Your task to perform on an android device: change alarm snooze length Image 0: 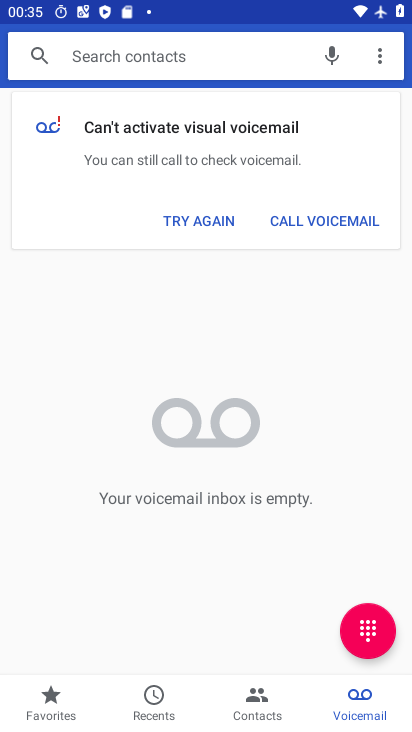
Step 0: press home button
Your task to perform on an android device: change alarm snooze length Image 1: 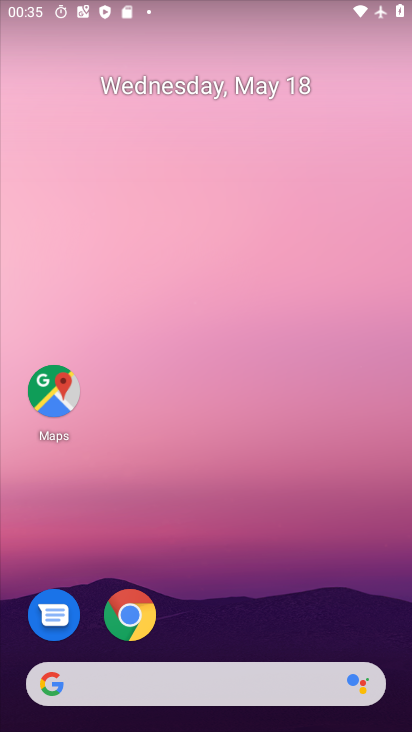
Step 1: drag from (205, 627) to (292, 261)
Your task to perform on an android device: change alarm snooze length Image 2: 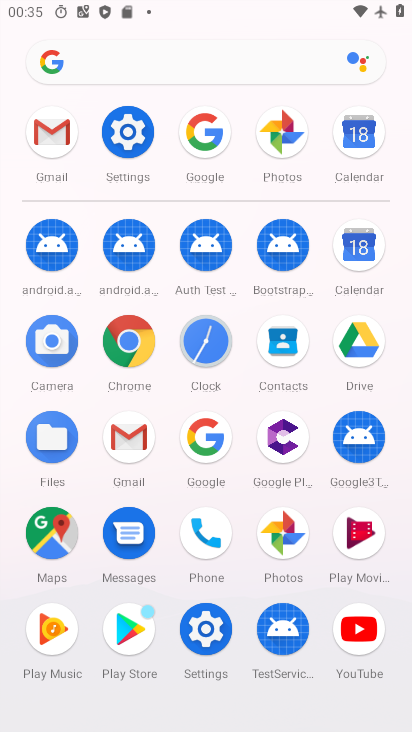
Step 2: click (197, 340)
Your task to perform on an android device: change alarm snooze length Image 3: 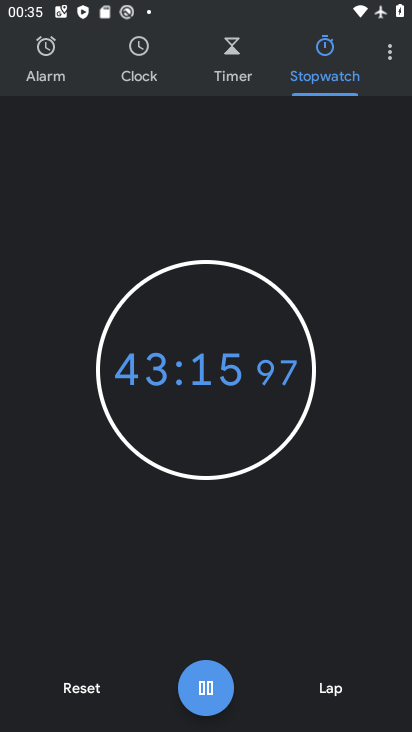
Step 3: click (384, 44)
Your task to perform on an android device: change alarm snooze length Image 4: 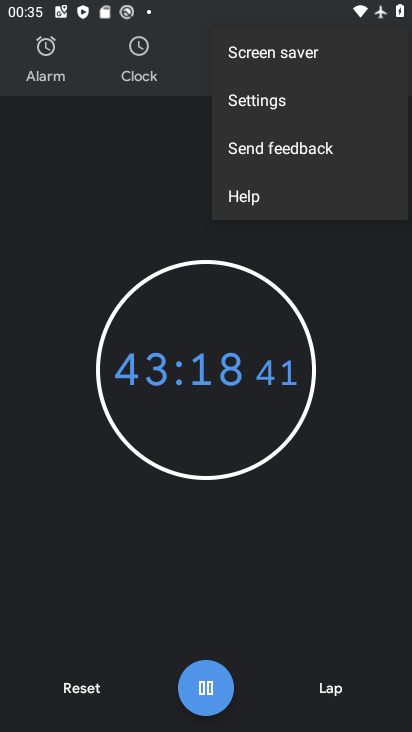
Step 4: click (328, 98)
Your task to perform on an android device: change alarm snooze length Image 5: 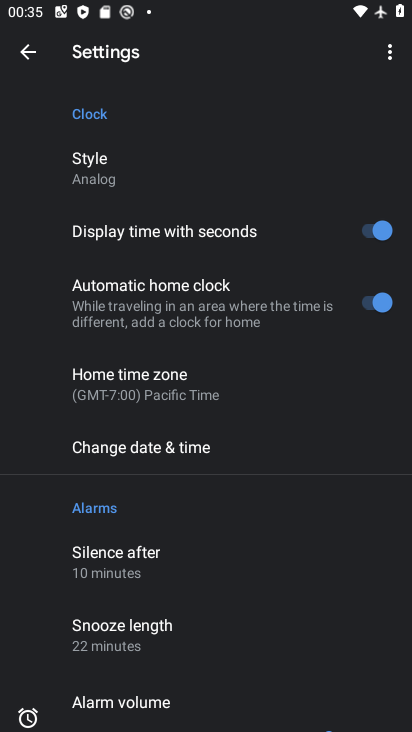
Step 5: click (205, 649)
Your task to perform on an android device: change alarm snooze length Image 6: 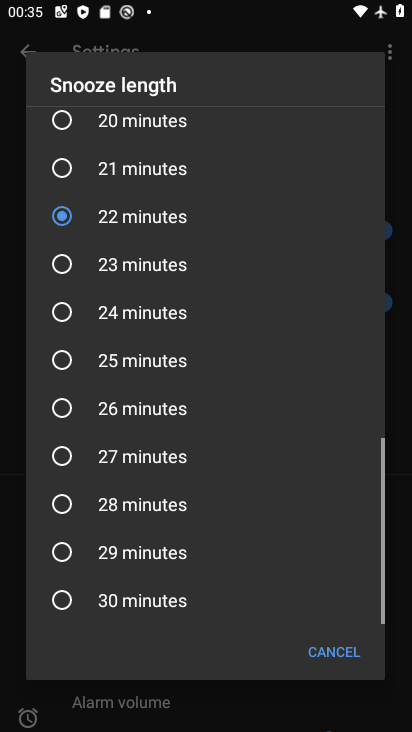
Step 6: click (151, 393)
Your task to perform on an android device: change alarm snooze length Image 7: 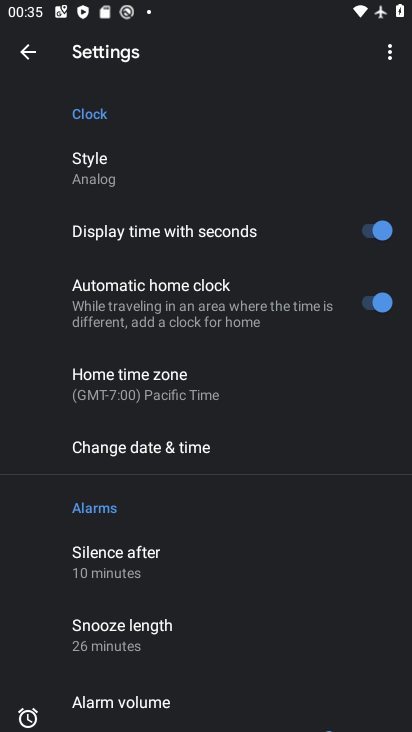
Step 7: task complete